Your task to perform on an android device: Open Google Chrome and click the shortcut for Amazon.com Image 0: 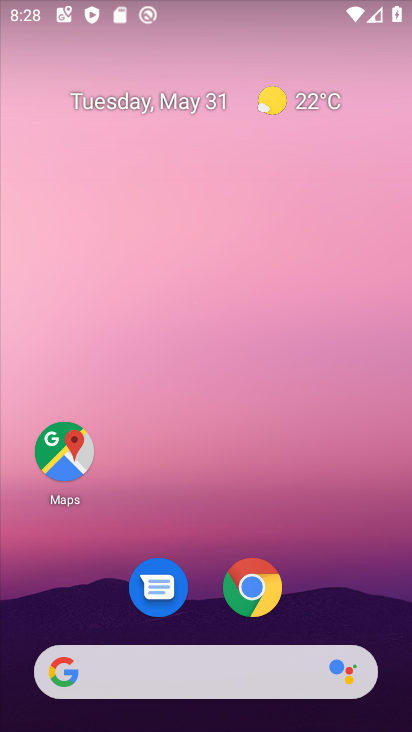
Step 0: click (253, 589)
Your task to perform on an android device: Open Google Chrome and click the shortcut for Amazon.com Image 1: 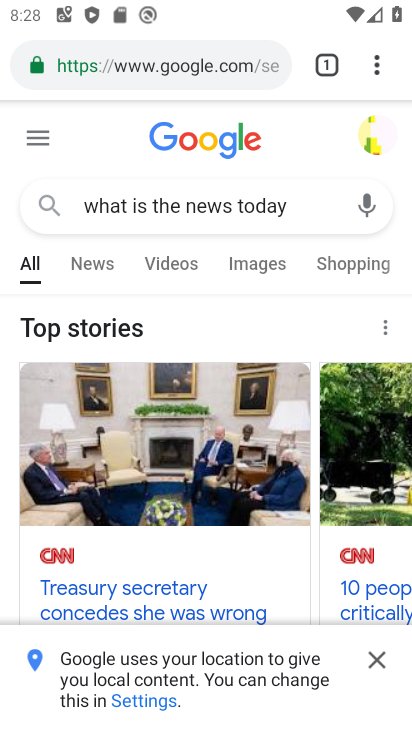
Step 1: press home button
Your task to perform on an android device: Open Google Chrome and click the shortcut for Amazon.com Image 2: 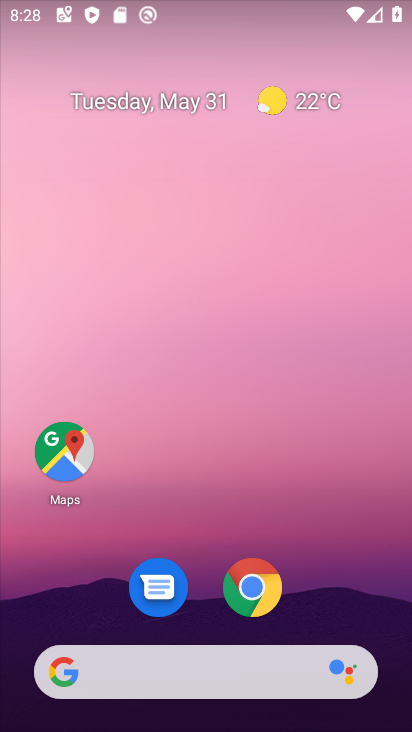
Step 2: click (247, 585)
Your task to perform on an android device: Open Google Chrome and click the shortcut for Amazon.com Image 3: 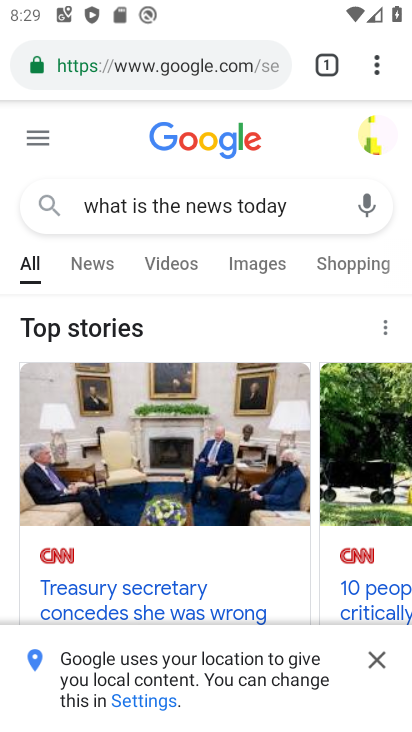
Step 3: click (329, 53)
Your task to perform on an android device: Open Google Chrome and click the shortcut for Amazon.com Image 4: 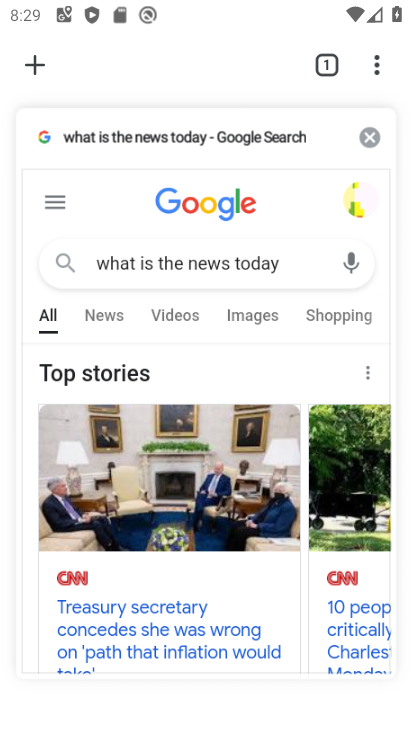
Step 4: click (28, 63)
Your task to perform on an android device: Open Google Chrome and click the shortcut for Amazon.com Image 5: 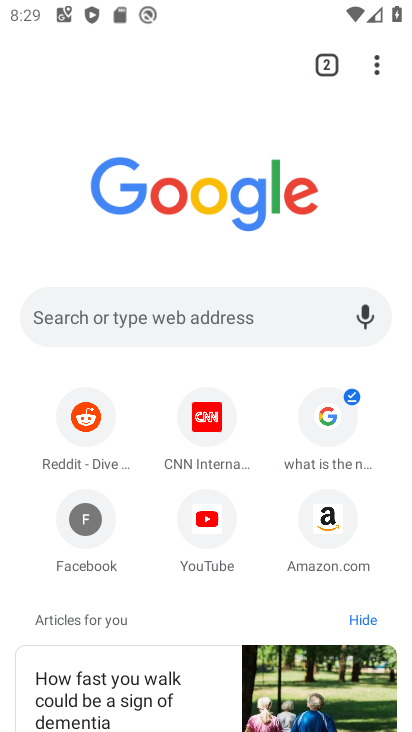
Step 5: click (335, 519)
Your task to perform on an android device: Open Google Chrome and click the shortcut for Amazon.com Image 6: 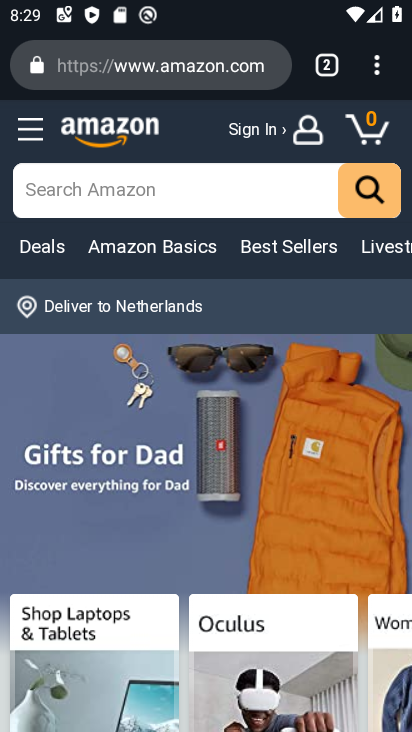
Step 6: task complete